Your task to perform on an android device: toggle translation in the chrome app Image 0: 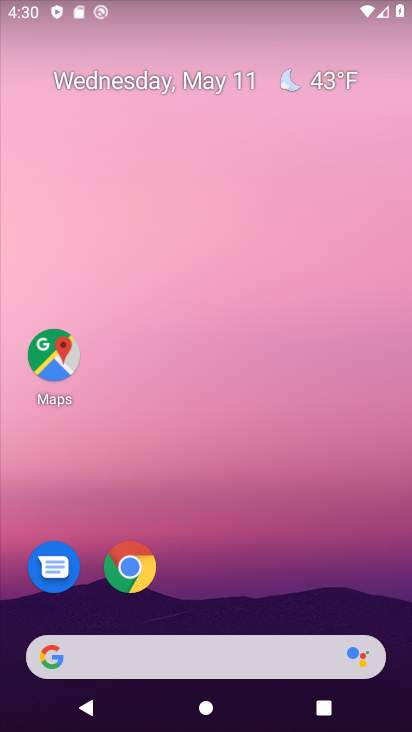
Step 0: click (126, 561)
Your task to perform on an android device: toggle translation in the chrome app Image 1: 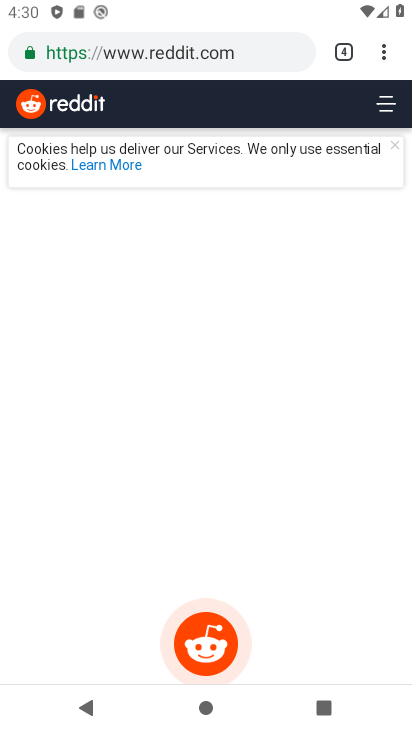
Step 1: click (382, 51)
Your task to perform on an android device: toggle translation in the chrome app Image 2: 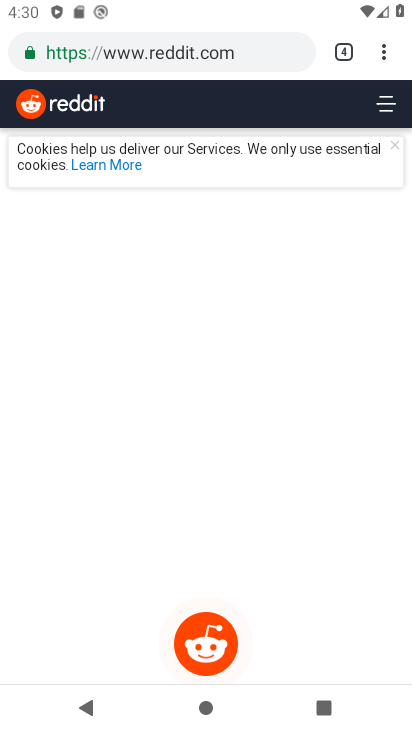
Step 2: click (391, 56)
Your task to perform on an android device: toggle translation in the chrome app Image 3: 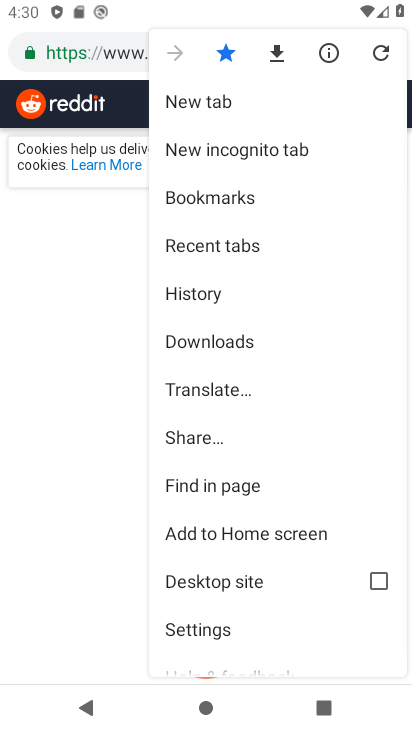
Step 3: drag from (244, 610) to (308, 184)
Your task to perform on an android device: toggle translation in the chrome app Image 4: 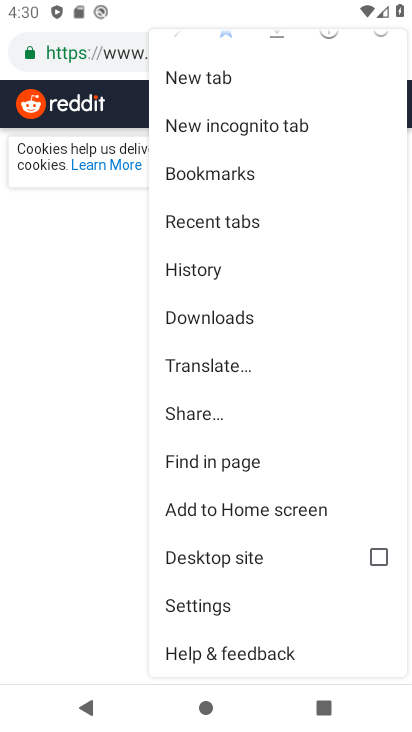
Step 4: click (220, 610)
Your task to perform on an android device: toggle translation in the chrome app Image 5: 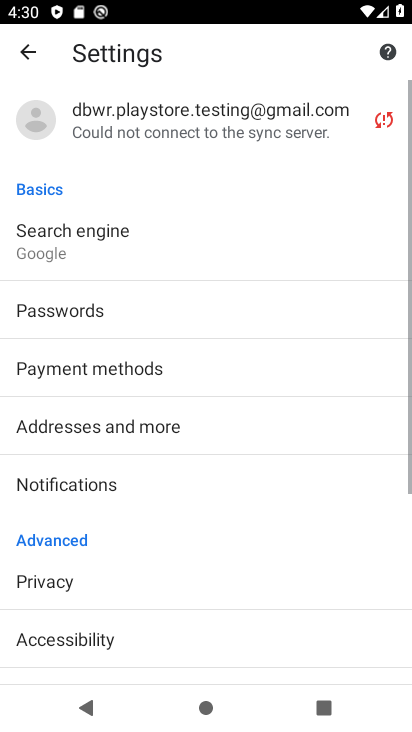
Step 5: drag from (218, 609) to (287, 159)
Your task to perform on an android device: toggle translation in the chrome app Image 6: 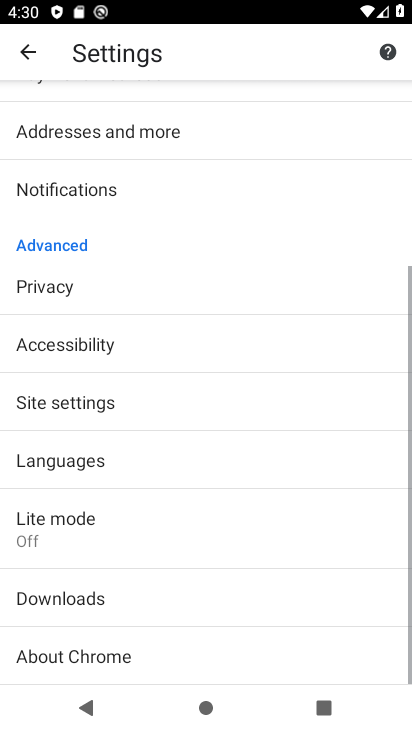
Step 6: drag from (147, 565) to (219, 148)
Your task to perform on an android device: toggle translation in the chrome app Image 7: 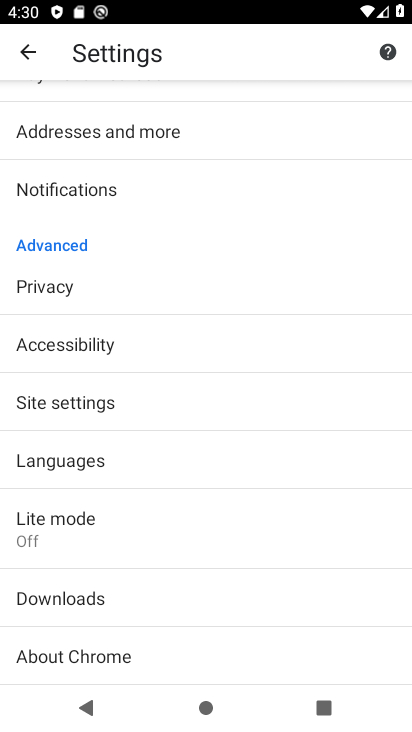
Step 7: click (144, 470)
Your task to perform on an android device: toggle translation in the chrome app Image 8: 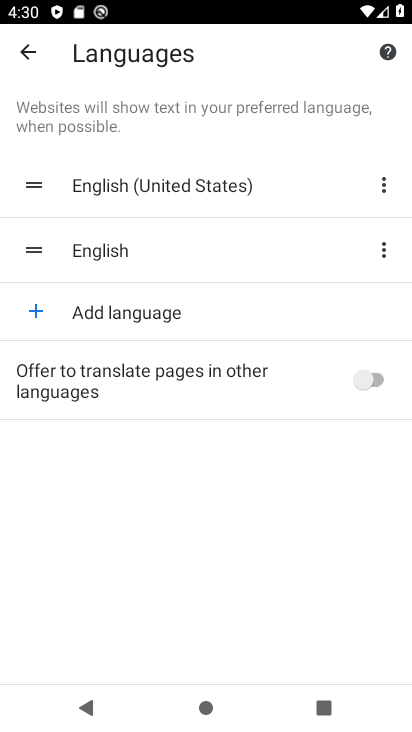
Step 8: click (360, 391)
Your task to perform on an android device: toggle translation in the chrome app Image 9: 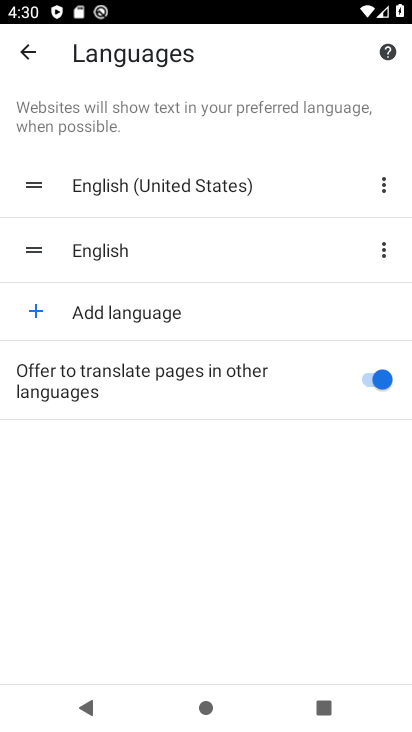
Step 9: task complete